Your task to perform on an android device: turn off location history Image 0: 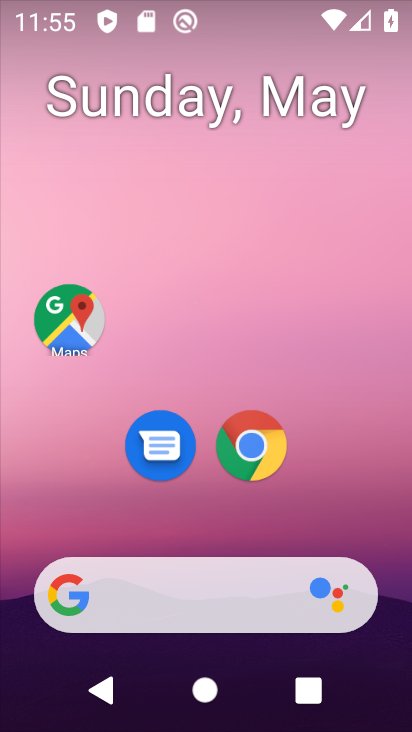
Step 0: drag from (316, 499) to (300, 27)
Your task to perform on an android device: turn off location history Image 1: 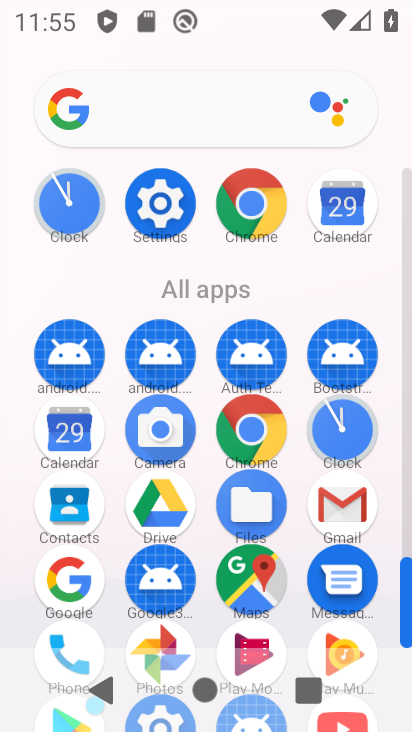
Step 1: click (262, 564)
Your task to perform on an android device: turn off location history Image 2: 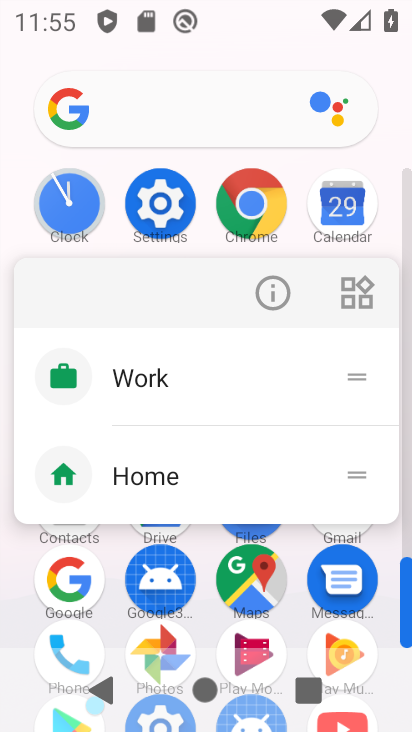
Step 2: click (262, 590)
Your task to perform on an android device: turn off location history Image 3: 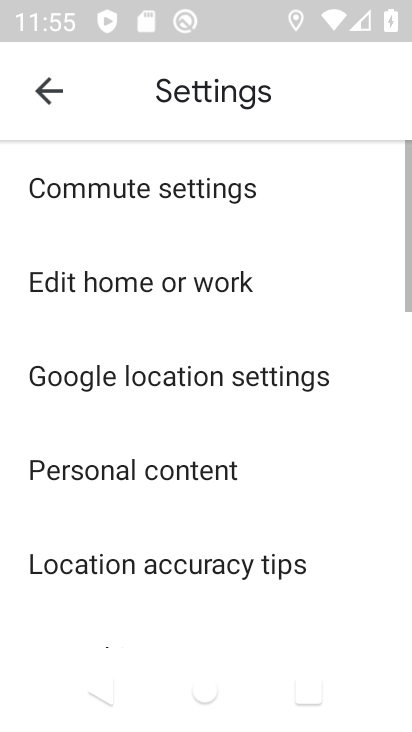
Step 3: click (52, 86)
Your task to perform on an android device: turn off location history Image 4: 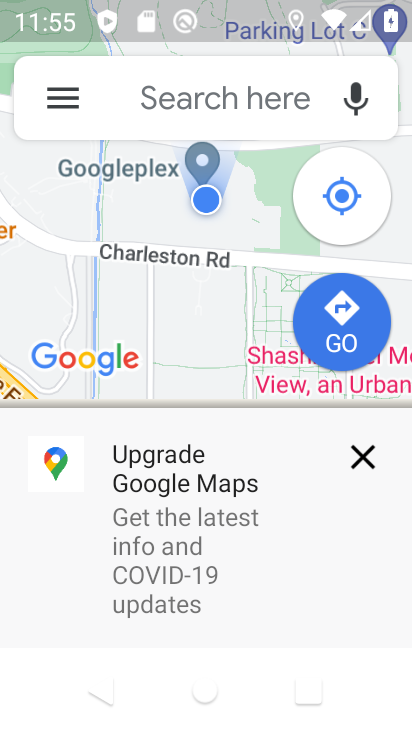
Step 4: click (64, 97)
Your task to perform on an android device: turn off location history Image 5: 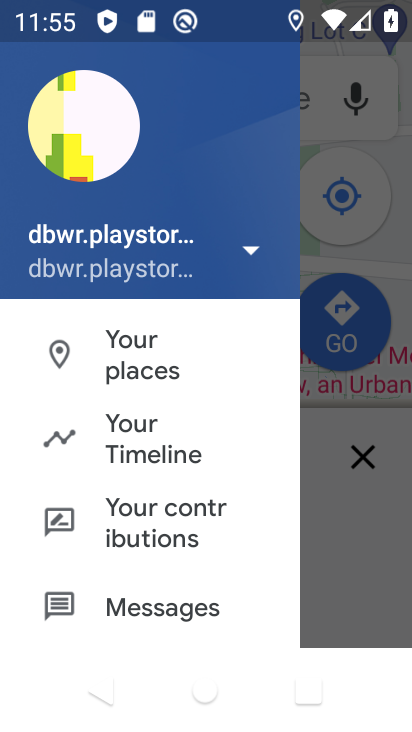
Step 5: click (151, 447)
Your task to perform on an android device: turn off location history Image 6: 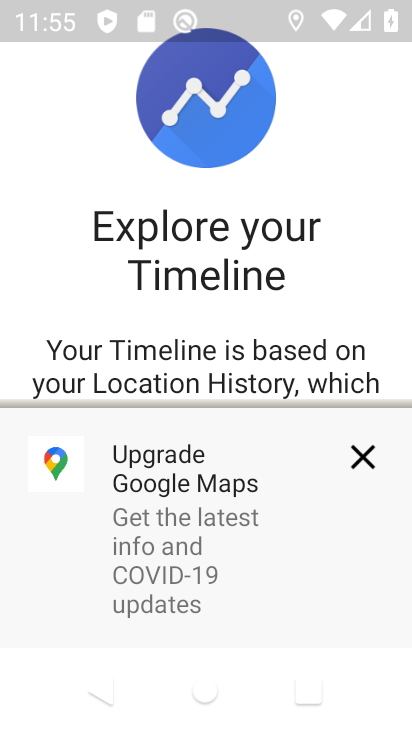
Step 6: click (366, 452)
Your task to perform on an android device: turn off location history Image 7: 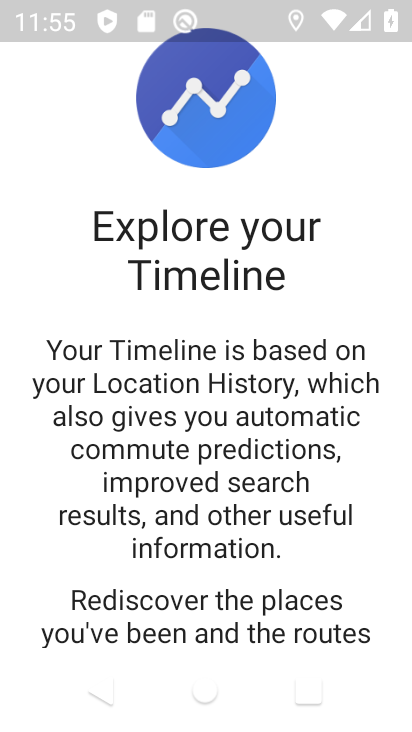
Step 7: drag from (195, 594) to (267, 109)
Your task to perform on an android device: turn off location history Image 8: 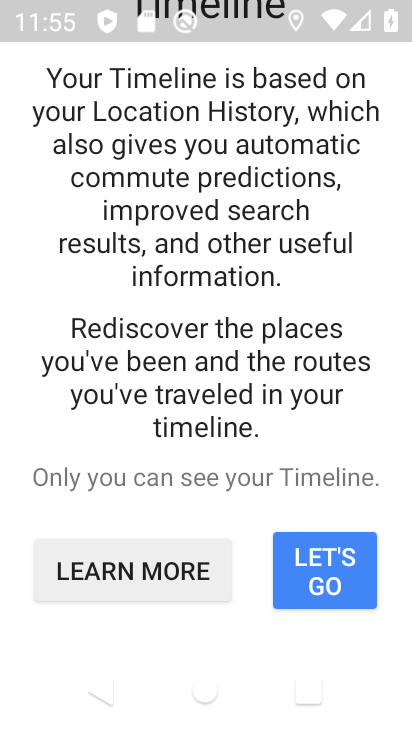
Step 8: click (307, 571)
Your task to perform on an android device: turn off location history Image 9: 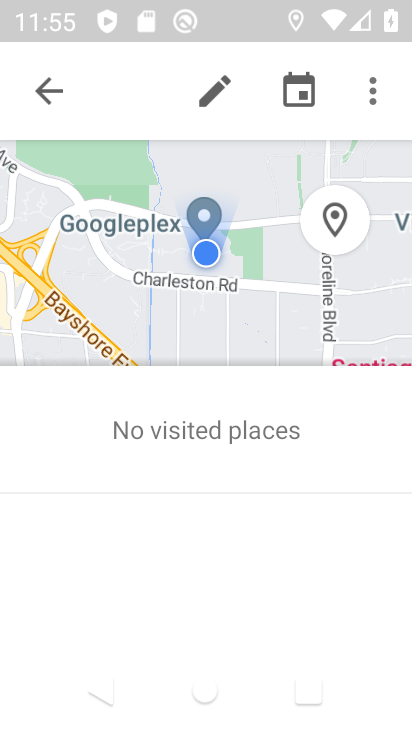
Step 9: click (371, 102)
Your task to perform on an android device: turn off location history Image 10: 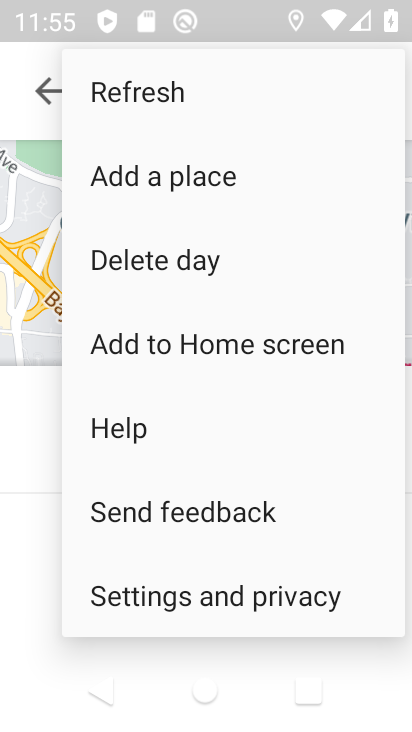
Step 10: click (226, 602)
Your task to perform on an android device: turn off location history Image 11: 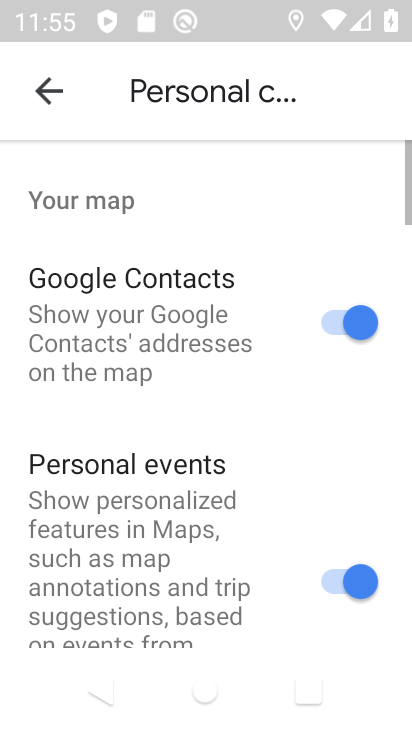
Step 11: drag from (233, 506) to (256, 230)
Your task to perform on an android device: turn off location history Image 12: 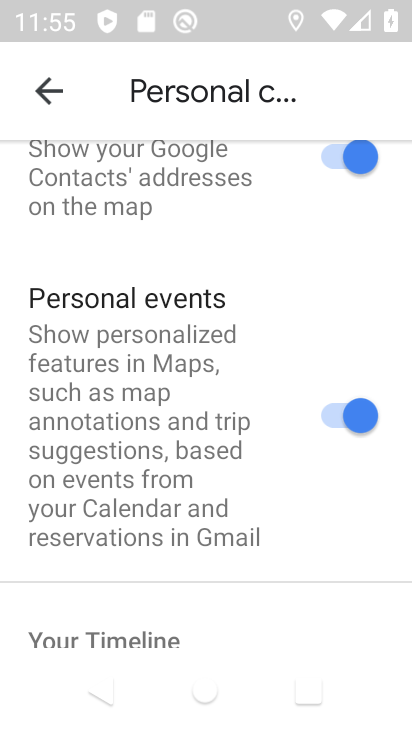
Step 12: drag from (259, 547) to (287, 253)
Your task to perform on an android device: turn off location history Image 13: 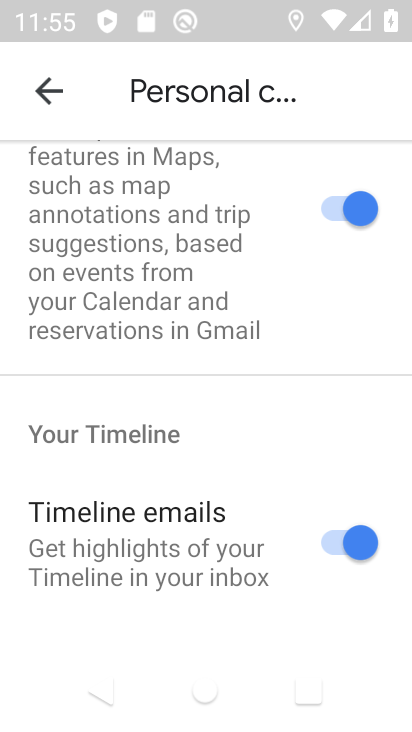
Step 13: drag from (211, 593) to (253, 167)
Your task to perform on an android device: turn off location history Image 14: 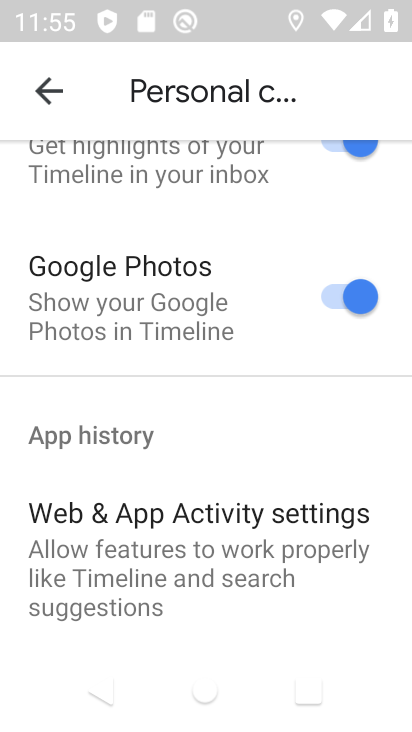
Step 14: drag from (210, 603) to (286, 269)
Your task to perform on an android device: turn off location history Image 15: 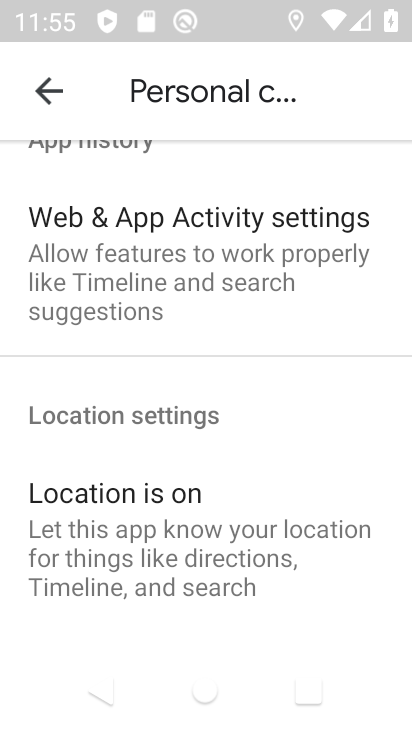
Step 15: drag from (187, 567) to (225, 278)
Your task to perform on an android device: turn off location history Image 16: 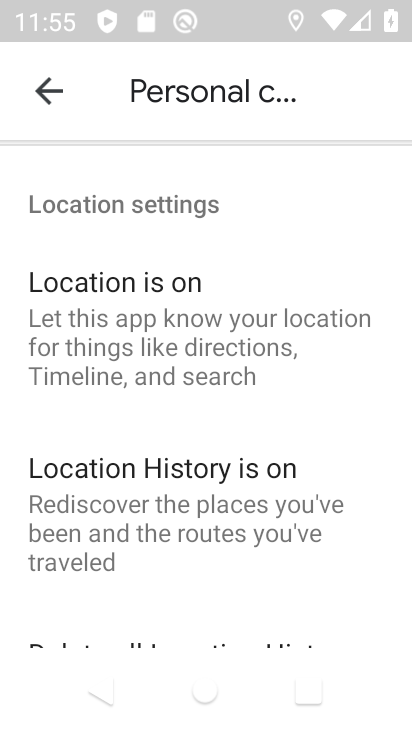
Step 16: click (163, 490)
Your task to perform on an android device: turn off location history Image 17: 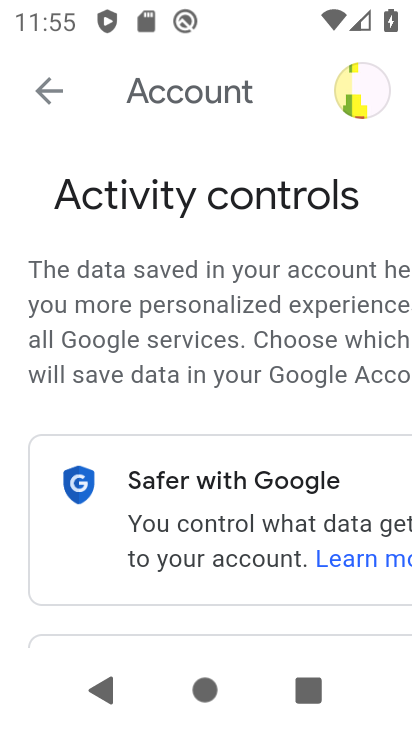
Step 17: task complete